Your task to perform on an android device: Open the calendar app, open the side menu, and click the "Day" option Image 0: 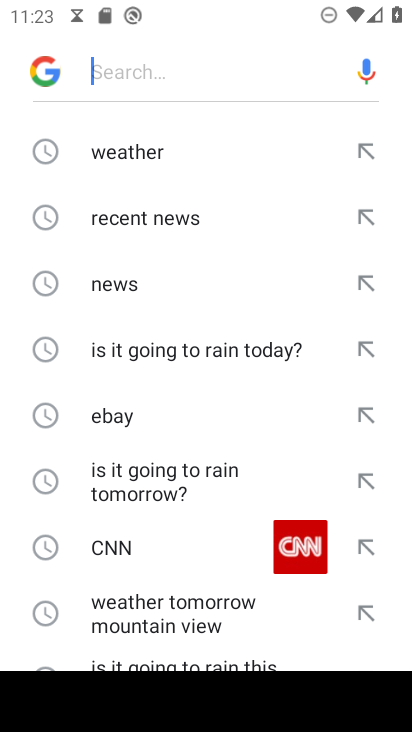
Step 0: press home button
Your task to perform on an android device: Open the calendar app, open the side menu, and click the "Day" option Image 1: 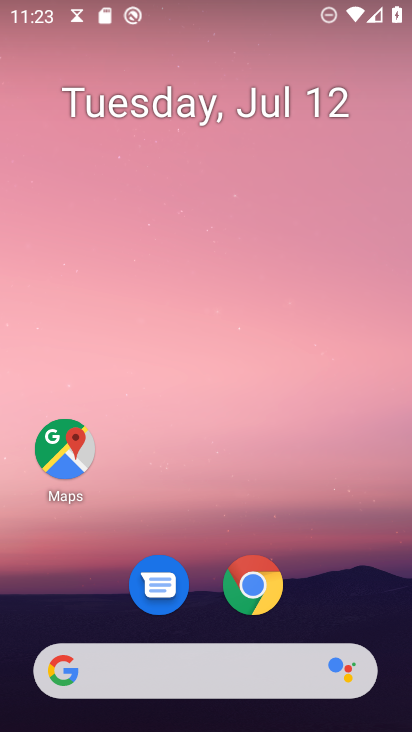
Step 1: drag from (213, 664) to (343, 96)
Your task to perform on an android device: Open the calendar app, open the side menu, and click the "Day" option Image 2: 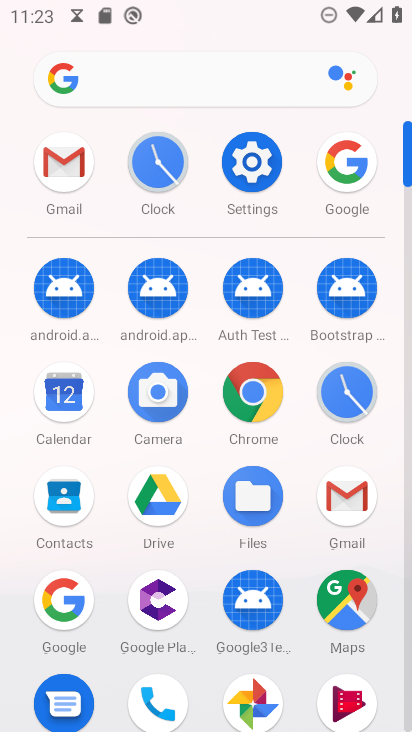
Step 2: click (69, 399)
Your task to perform on an android device: Open the calendar app, open the side menu, and click the "Day" option Image 3: 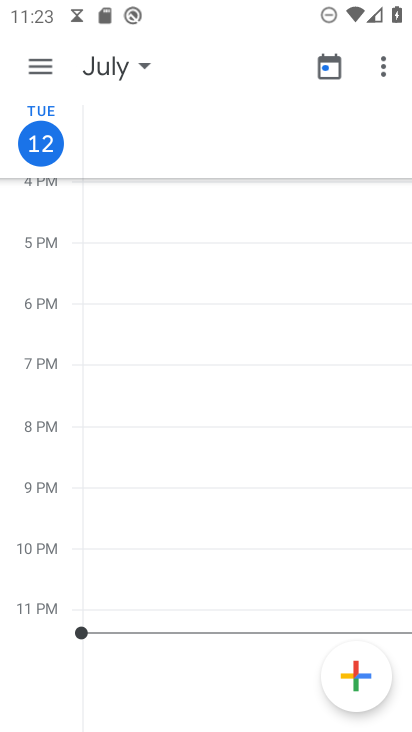
Step 3: click (35, 62)
Your task to perform on an android device: Open the calendar app, open the side menu, and click the "Day" option Image 4: 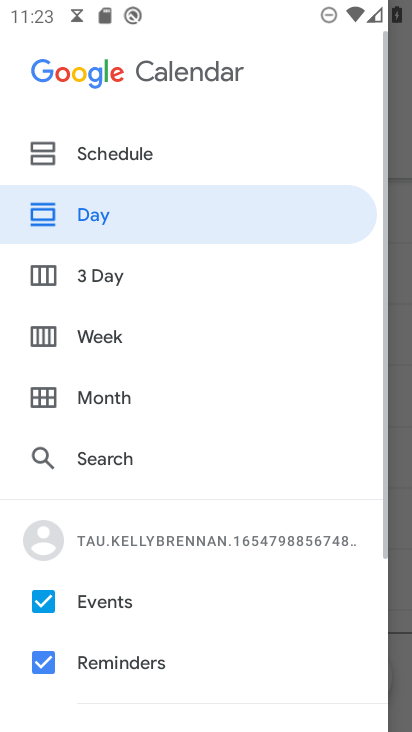
Step 4: click (88, 217)
Your task to perform on an android device: Open the calendar app, open the side menu, and click the "Day" option Image 5: 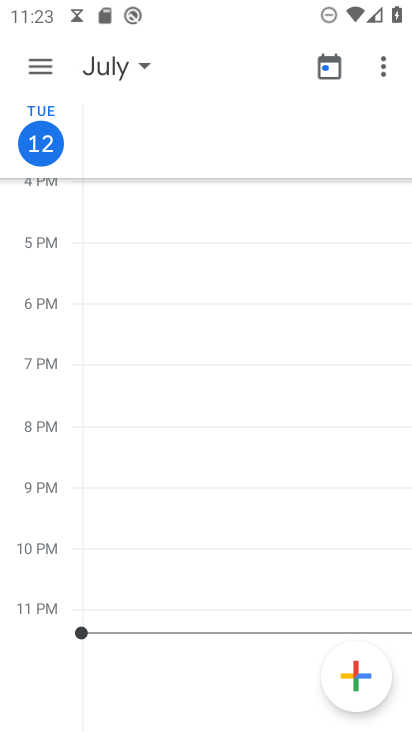
Step 5: task complete